Your task to perform on an android device: turn on airplane mode Image 0: 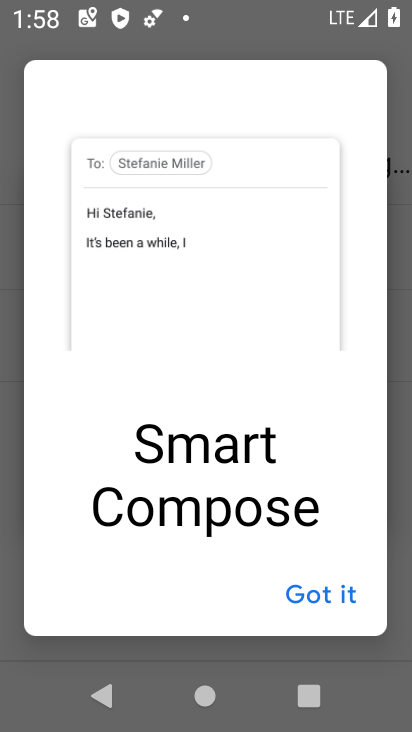
Step 0: press home button
Your task to perform on an android device: turn on airplane mode Image 1: 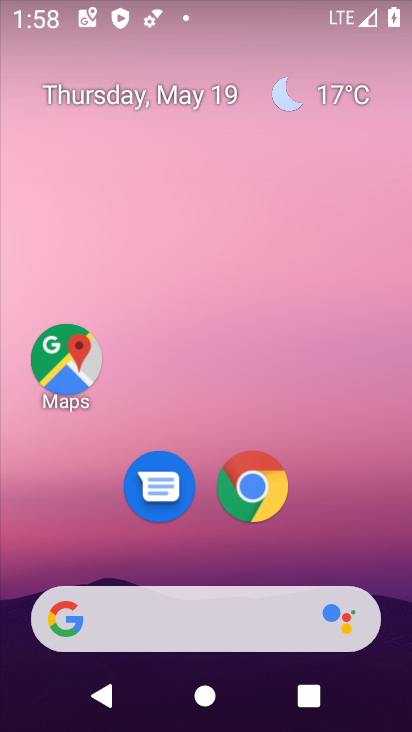
Step 1: drag from (326, 457) to (240, 100)
Your task to perform on an android device: turn on airplane mode Image 2: 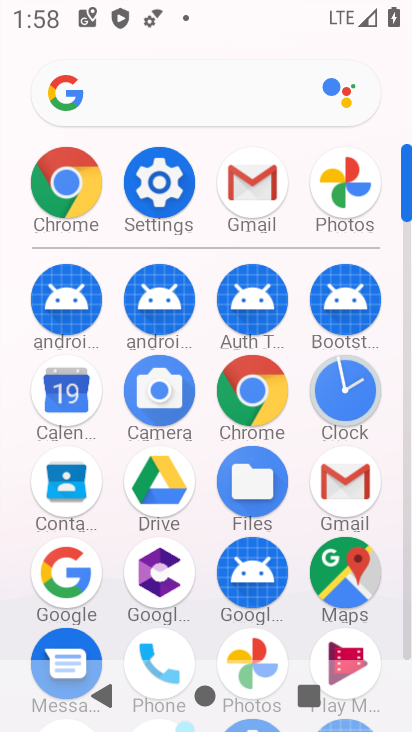
Step 2: click (166, 178)
Your task to perform on an android device: turn on airplane mode Image 3: 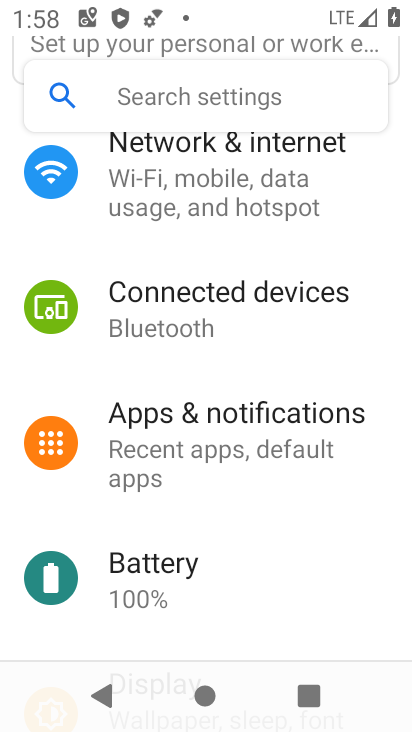
Step 3: drag from (278, 202) to (248, 578)
Your task to perform on an android device: turn on airplane mode Image 4: 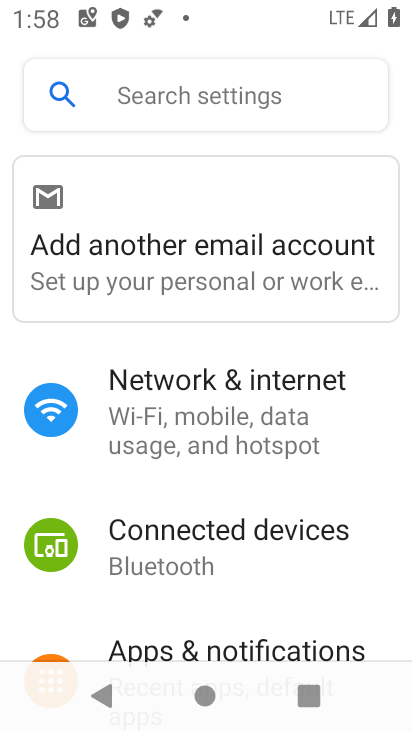
Step 4: click (255, 444)
Your task to perform on an android device: turn on airplane mode Image 5: 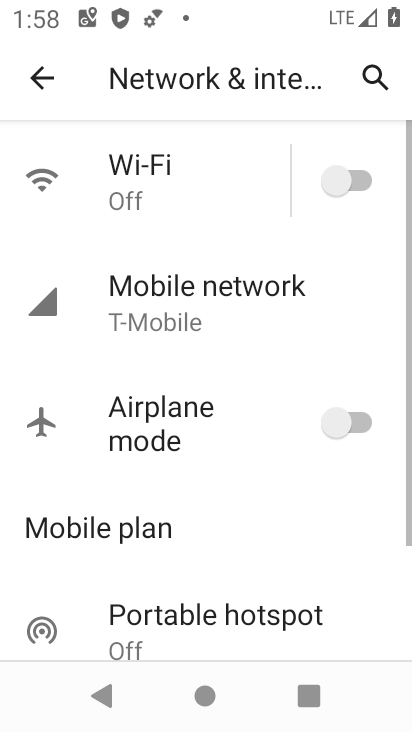
Step 5: click (341, 419)
Your task to perform on an android device: turn on airplane mode Image 6: 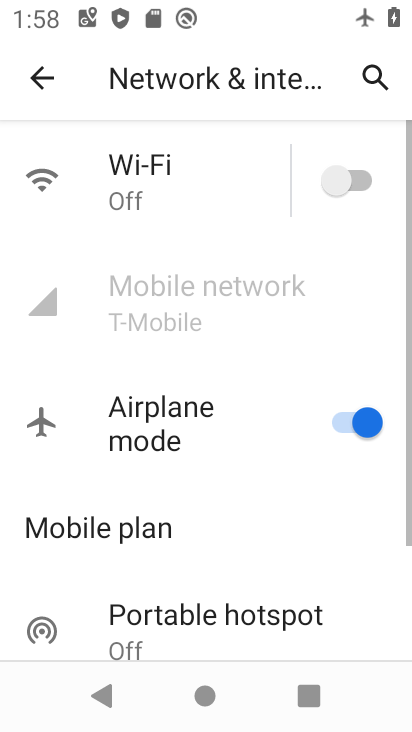
Step 6: task complete